Your task to perform on an android device: Open wifi settings Image 0: 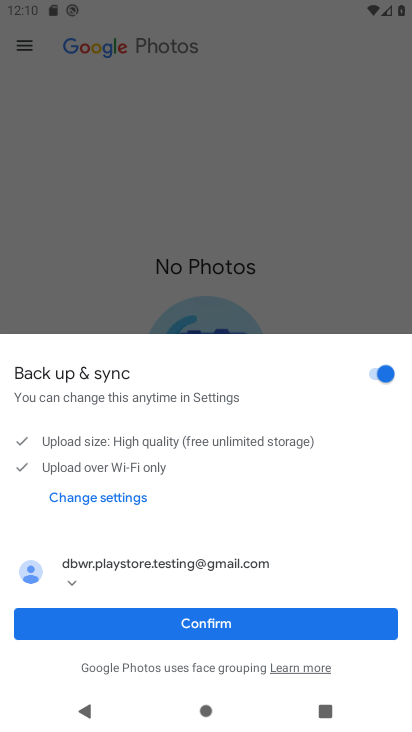
Step 0: press home button
Your task to perform on an android device: Open wifi settings Image 1: 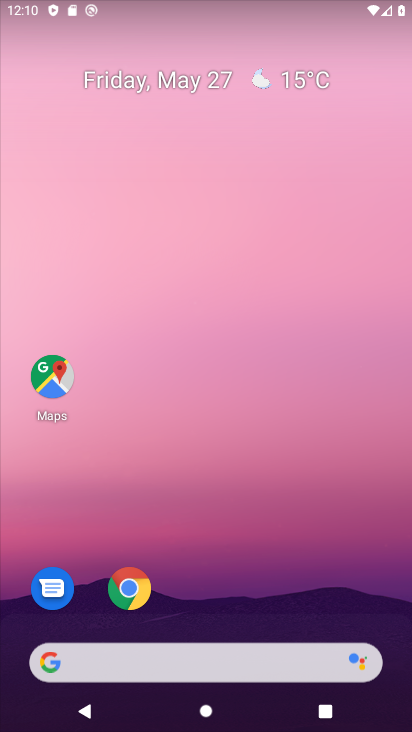
Step 1: drag from (367, 621) to (361, 29)
Your task to perform on an android device: Open wifi settings Image 2: 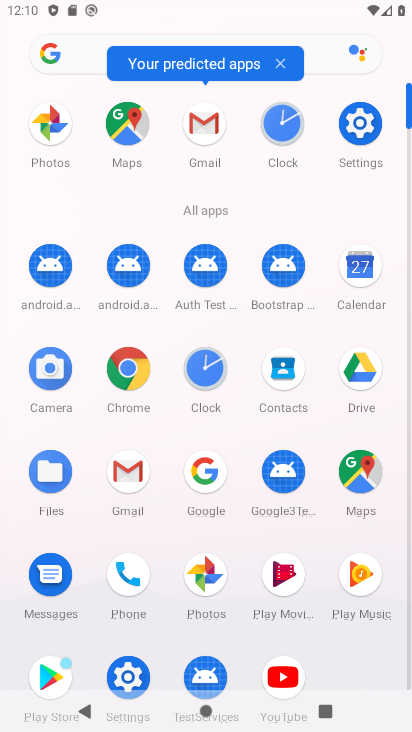
Step 2: click (129, 675)
Your task to perform on an android device: Open wifi settings Image 3: 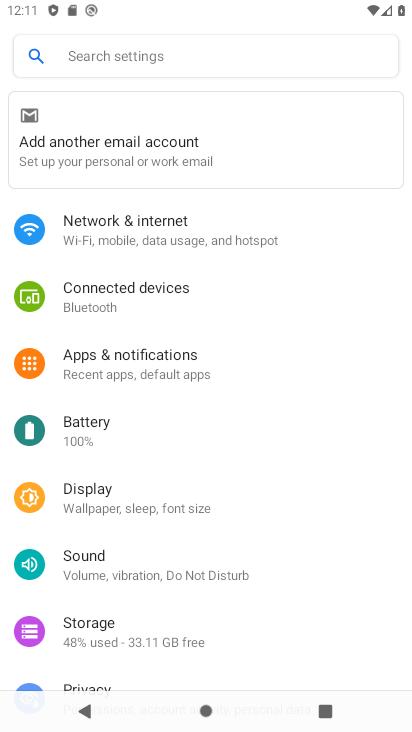
Step 3: click (83, 217)
Your task to perform on an android device: Open wifi settings Image 4: 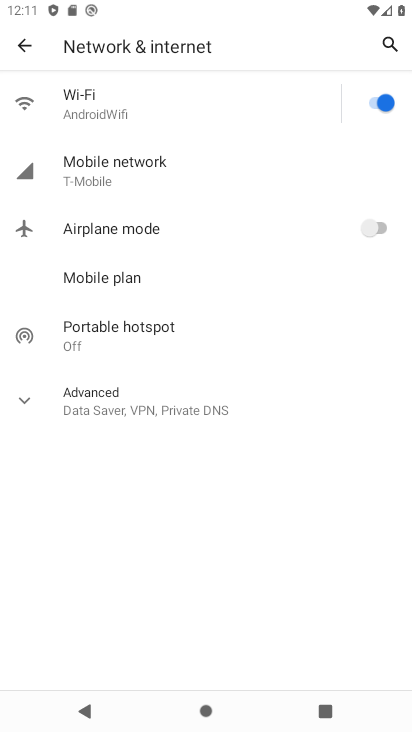
Step 4: click (58, 93)
Your task to perform on an android device: Open wifi settings Image 5: 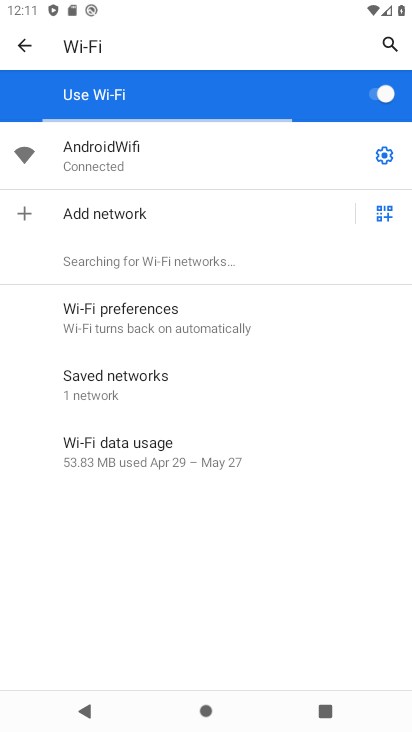
Step 5: click (387, 153)
Your task to perform on an android device: Open wifi settings Image 6: 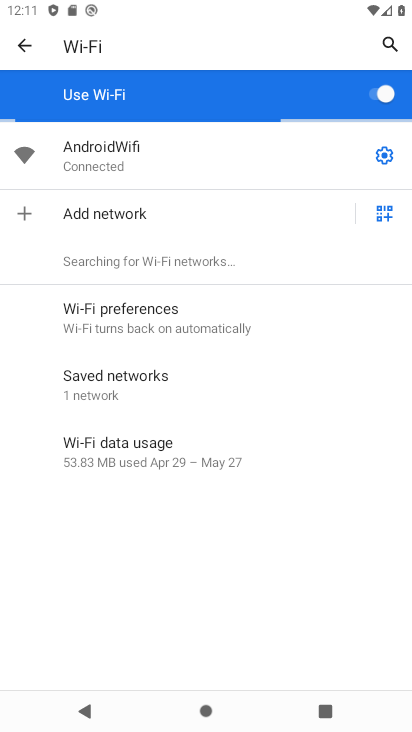
Step 6: click (387, 153)
Your task to perform on an android device: Open wifi settings Image 7: 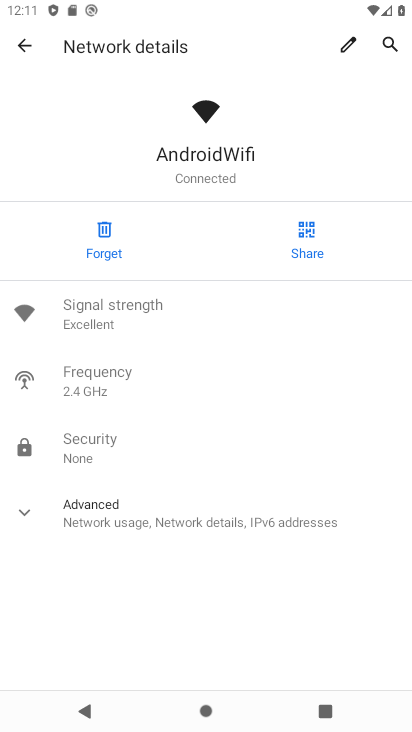
Step 7: click (30, 510)
Your task to perform on an android device: Open wifi settings Image 8: 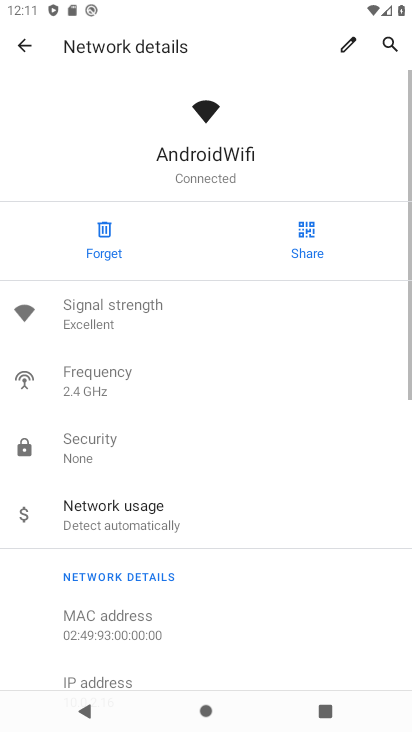
Step 8: task complete